Your task to perform on an android device: Open the Play Movies app and select the watchlist tab. Image 0: 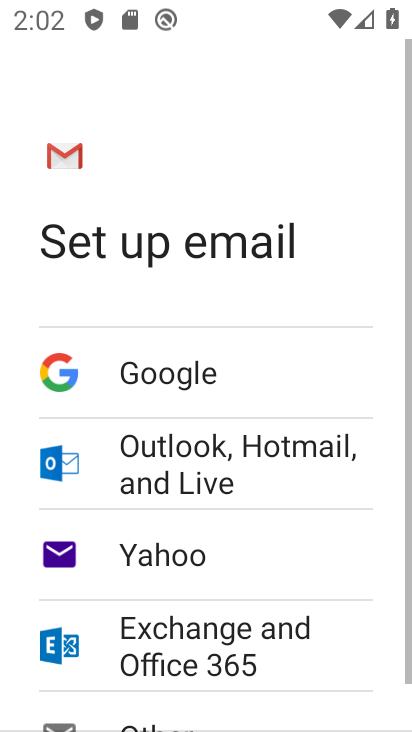
Step 0: press home button
Your task to perform on an android device: Open the Play Movies app and select the watchlist tab. Image 1: 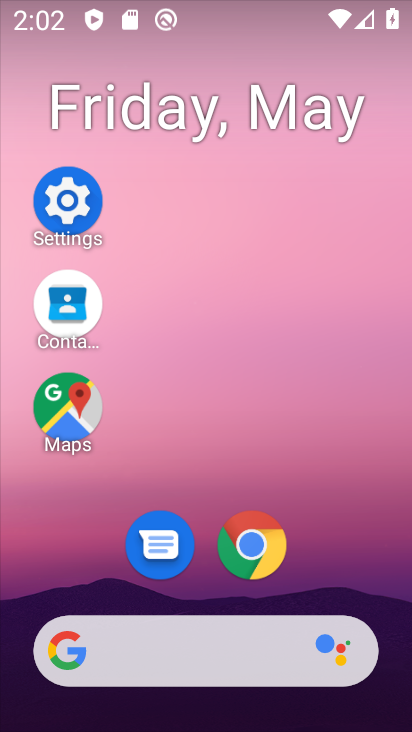
Step 1: drag from (320, 467) to (341, 87)
Your task to perform on an android device: Open the Play Movies app and select the watchlist tab. Image 2: 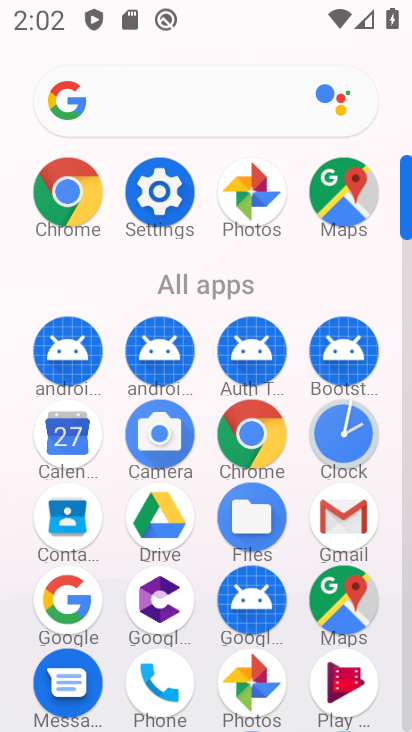
Step 2: drag from (211, 621) to (199, 209)
Your task to perform on an android device: Open the Play Movies app and select the watchlist tab. Image 3: 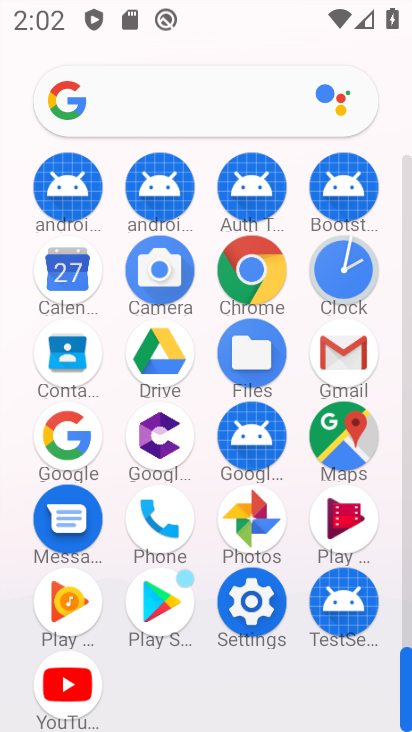
Step 3: click (341, 533)
Your task to perform on an android device: Open the Play Movies app and select the watchlist tab. Image 4: 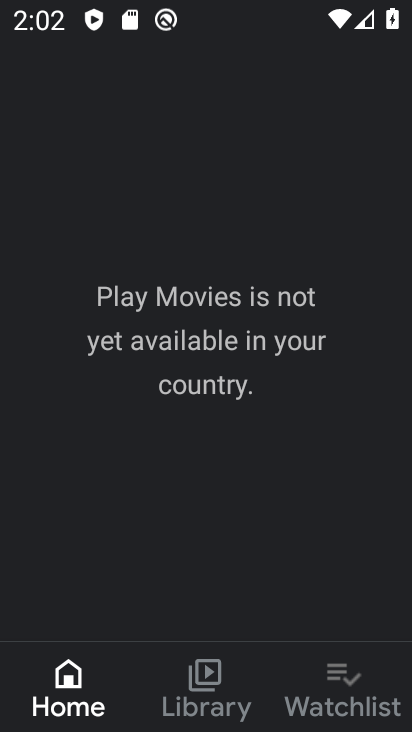
Step 4: click (341, 684)
Your task to perform on an android device: Open the Play Movies app and select the watchlist tab. Image 5: 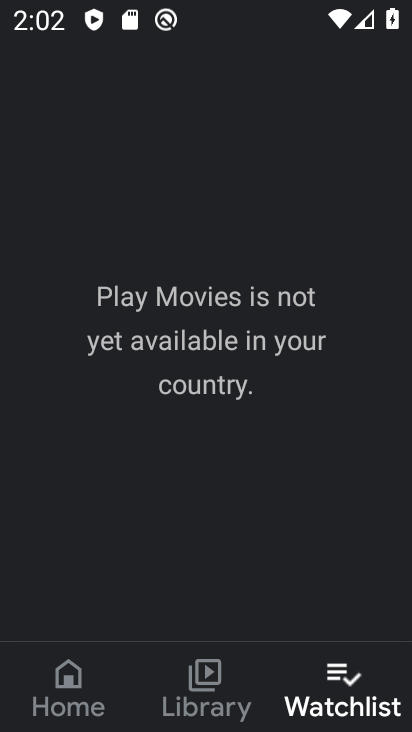
Step 5: task complete